Your task to perform on an android device: change the clock display to digital Image 0: 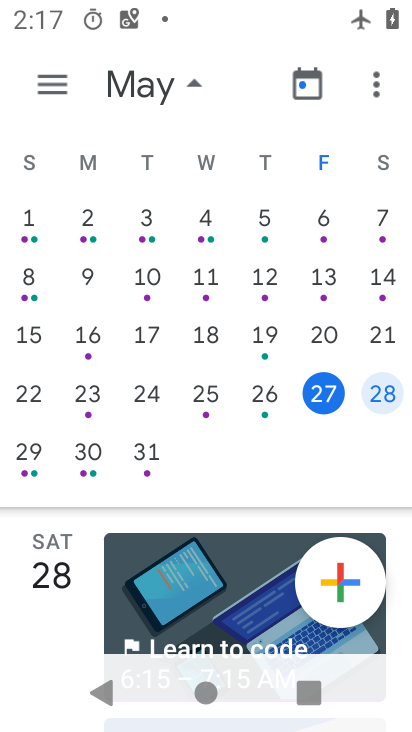
Step 0: press home button
Your task to perform on an android device: change the clock display to digital Image 1: 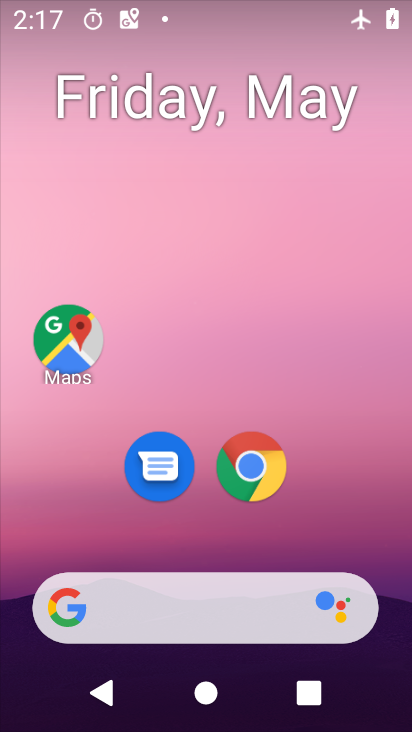
Step 1: drag from (360, 508) to (410, 46)
Your task to perform on an android device: change the clock display to digital Image 2: 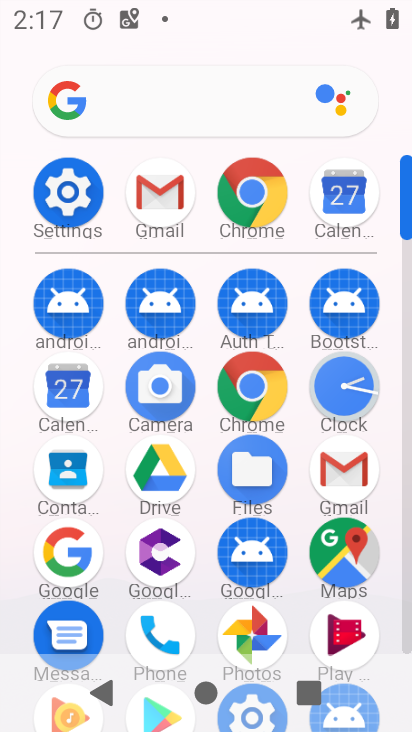
Step 2: click (344, 381)
Your task to perform on an android device: change the clock display to digital Image 3: 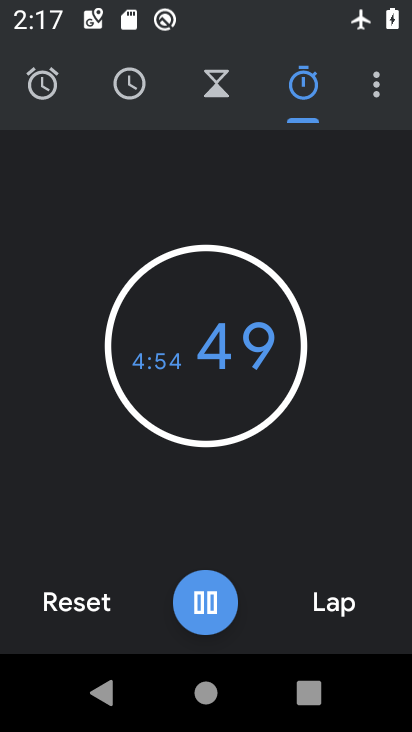
Step 3: click (380, 85)
Your task to perform on an android device: change the clock display to digital Image 4: 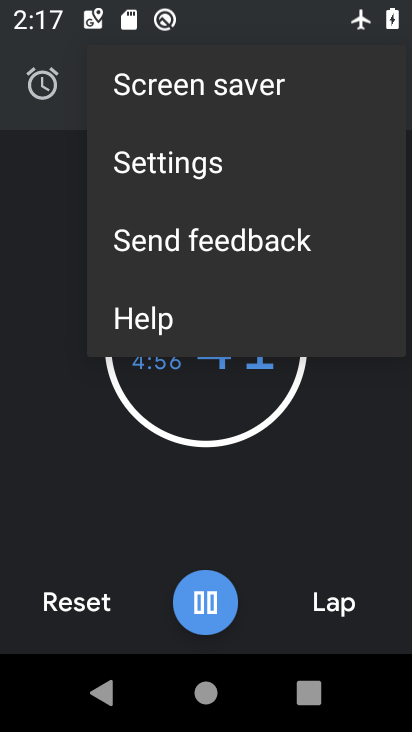
Step 4: click (120, 178)
Your task to perform on an android device: change the clock display to digital Image 5: 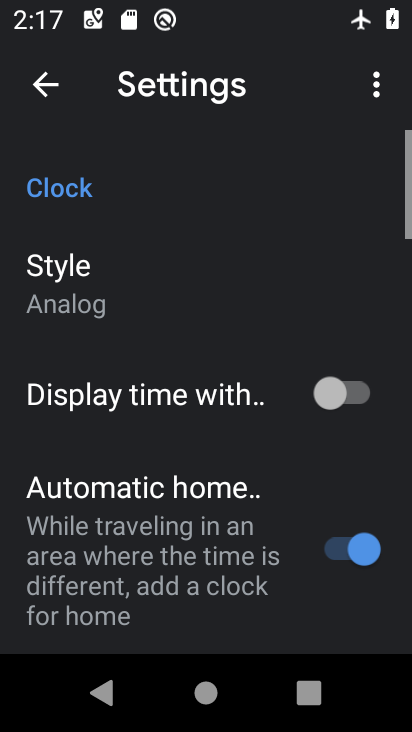
Step 5: click (92, 298)
Your task to perform on an android device: change the clock display to digital Image 6: 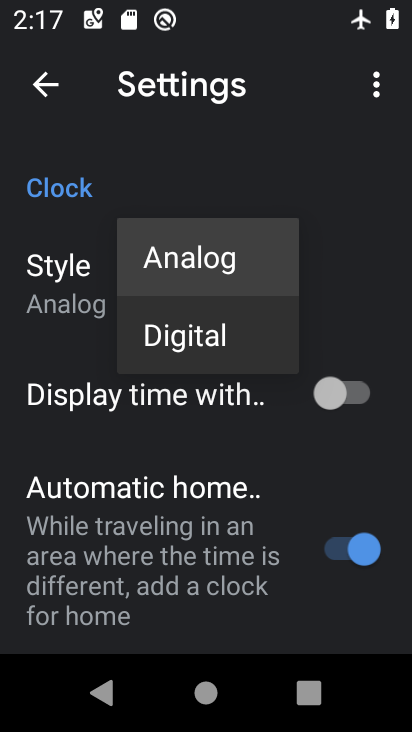
Step 6: task complete